Your task to perform on an android device: Open notification settings Image 0: 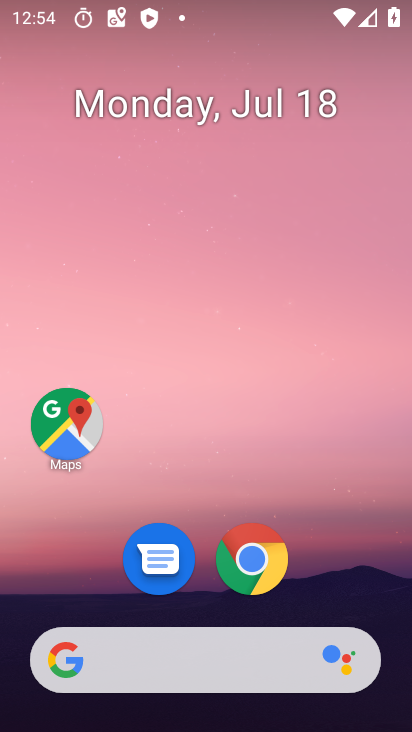
Step 0: click (248, 35)
Your task to perform on an android device: Open notification settings Image 1: 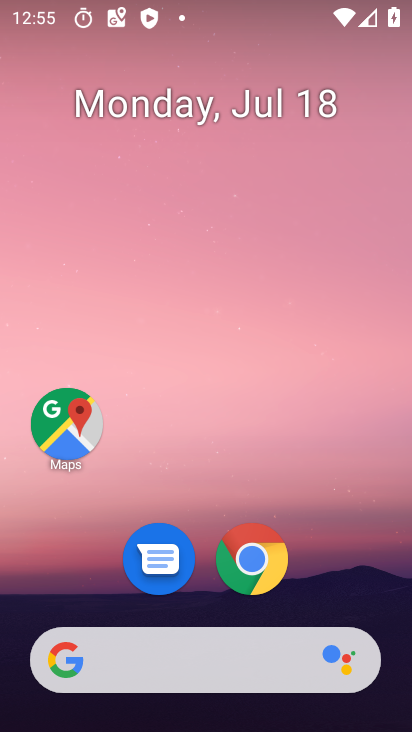
Step 1: drag from (231, 461) to (253, 8)
Your task to perform on an android device: Open notification settings Image 2: 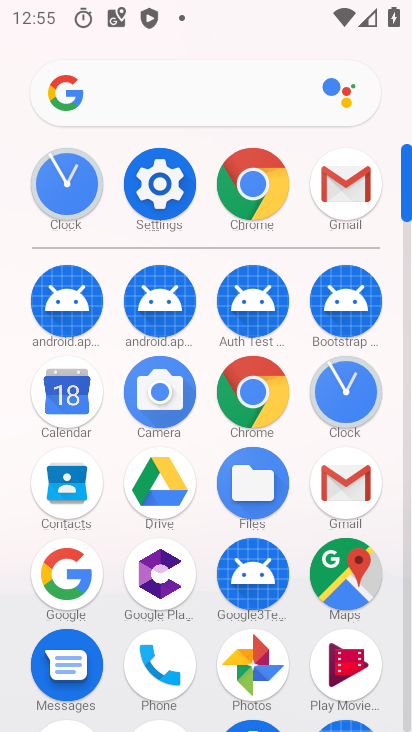
Step 2: click (176, 170)
Your task to perform on an android device: Open notification settings Image 3: 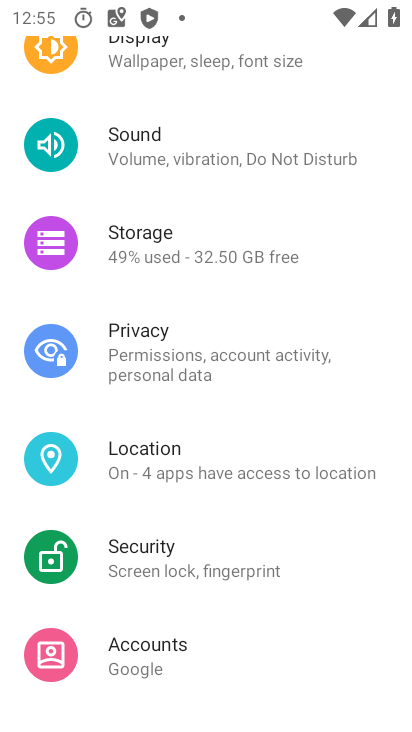
Step 3: drag from (185, 145) to (213, 728)
Your task to perform on an android device: Open notification settings Image 4: 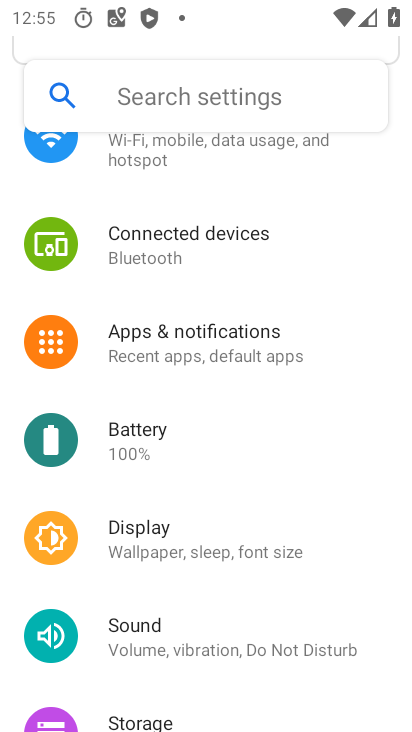
Step 4: click (207, 339)
Your task to perform on an android device: Open notification settings Image 5: 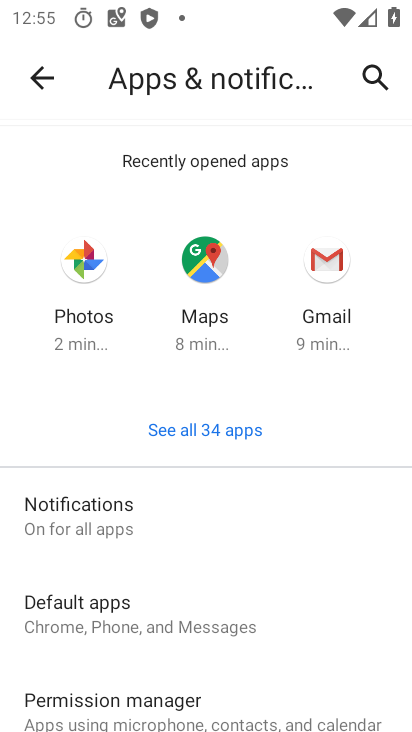
Step 5: click (138, 507)
Your task to perform on an android device: Open notification settings Image 6: 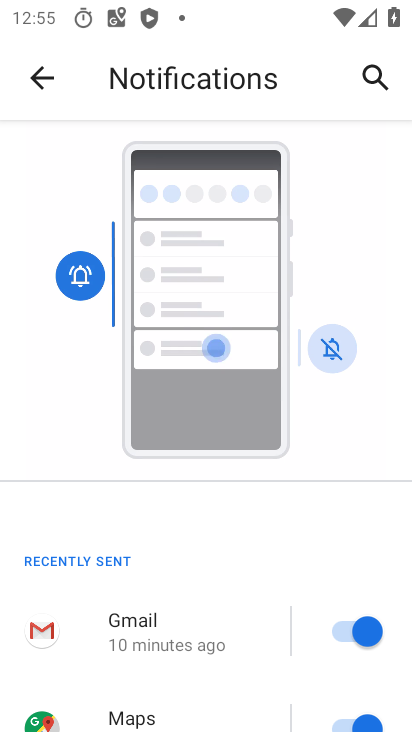
Step 6: task complete